Your task to perform on an android device: Open Google Image 0: 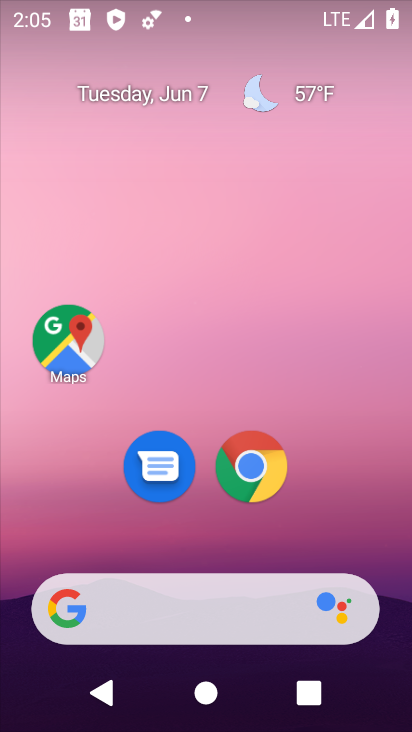
Step 0: drag from (208, 481) to (256, 72)
Your task to perform on an android device: Open Google Image 1: 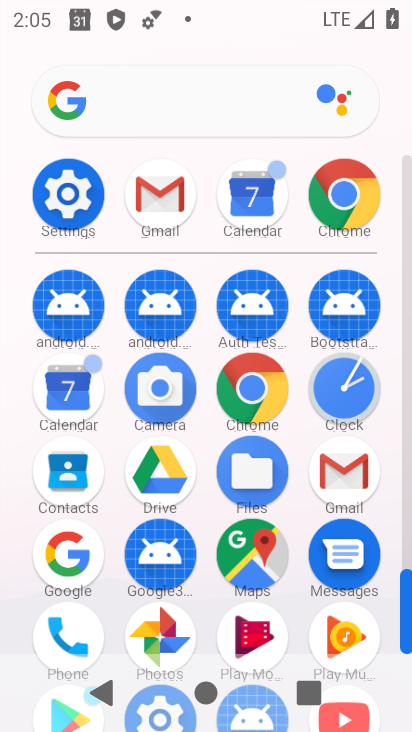
Step 1: click (58, 562)
Your task to perform on an android device: Open Google Image 2: 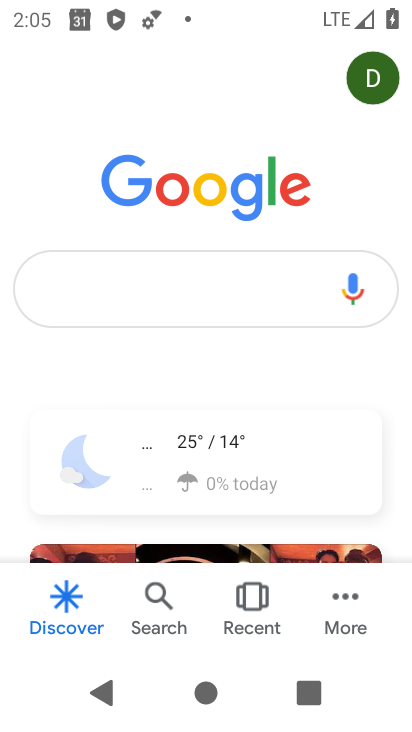
Step 2: task complete